Your task to perform on an android device: Open internet settings Image 0: 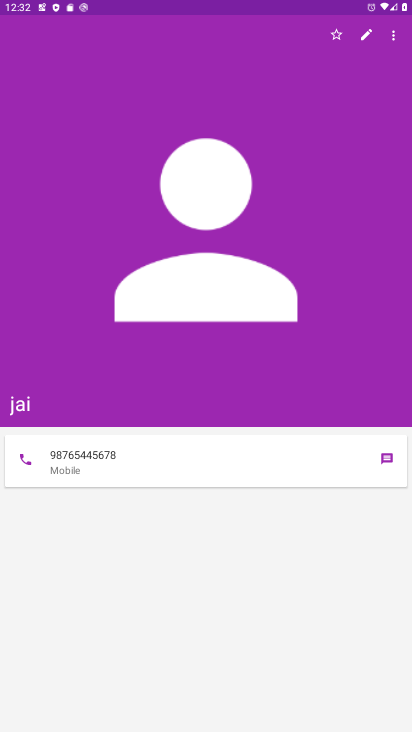
Step 0: press home button
Your task to perform on an android device: Open internet settings Image 1: 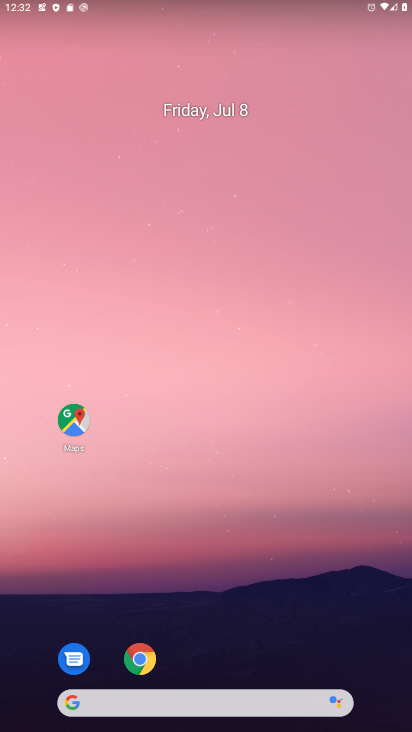
Step 1: drag from (242, 584) to (183, 196)
Your task to perform on an android device: Open internet settings Image 2: 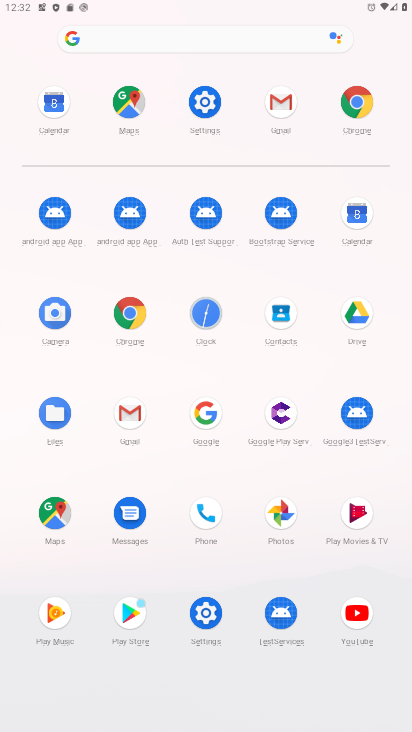
Step 2: click (205, 95)
Your task to perform on an android device: Open internet settings Image 3: 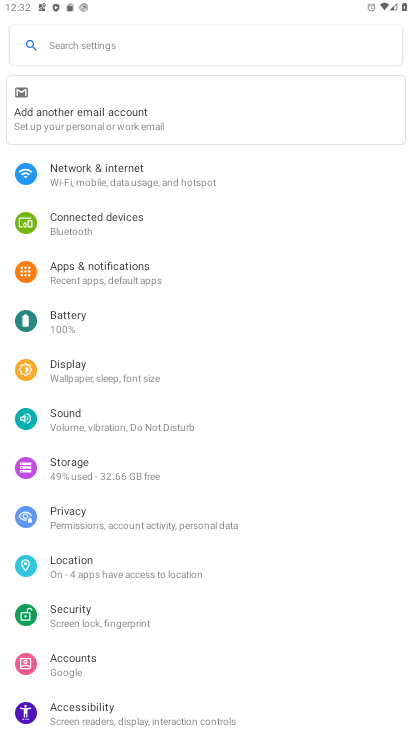
Step 3: click (116, 163)
Your task to perform on an android device: Open internet settings Image 4: 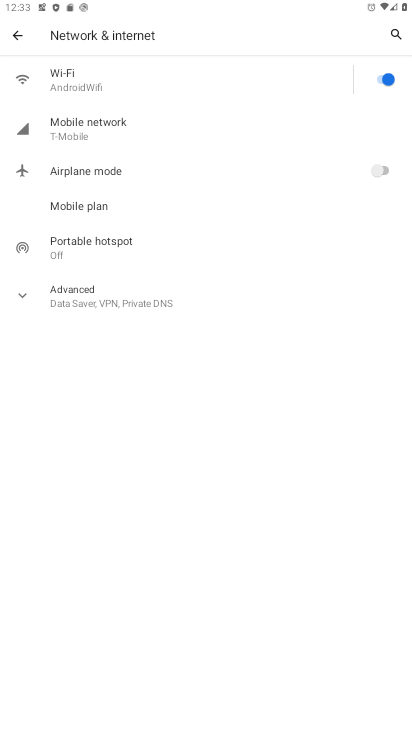
Step 4: click (98, 125)
Your task to perform on an android device: Open internet settings Image 5: 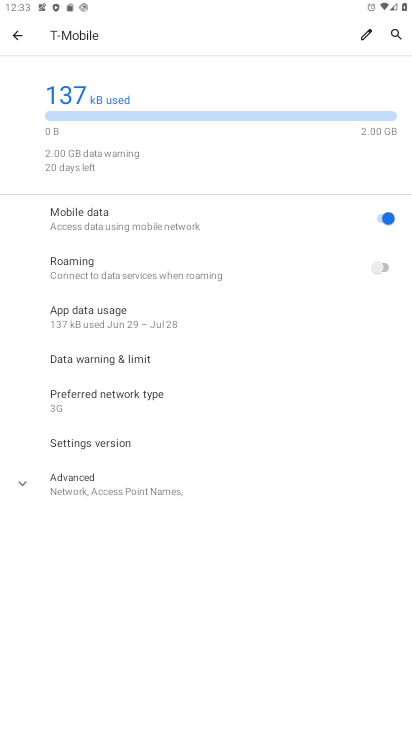
Step 5: task complete